Your task to perform on an android device: allow cookies in the chrome app Image 0: 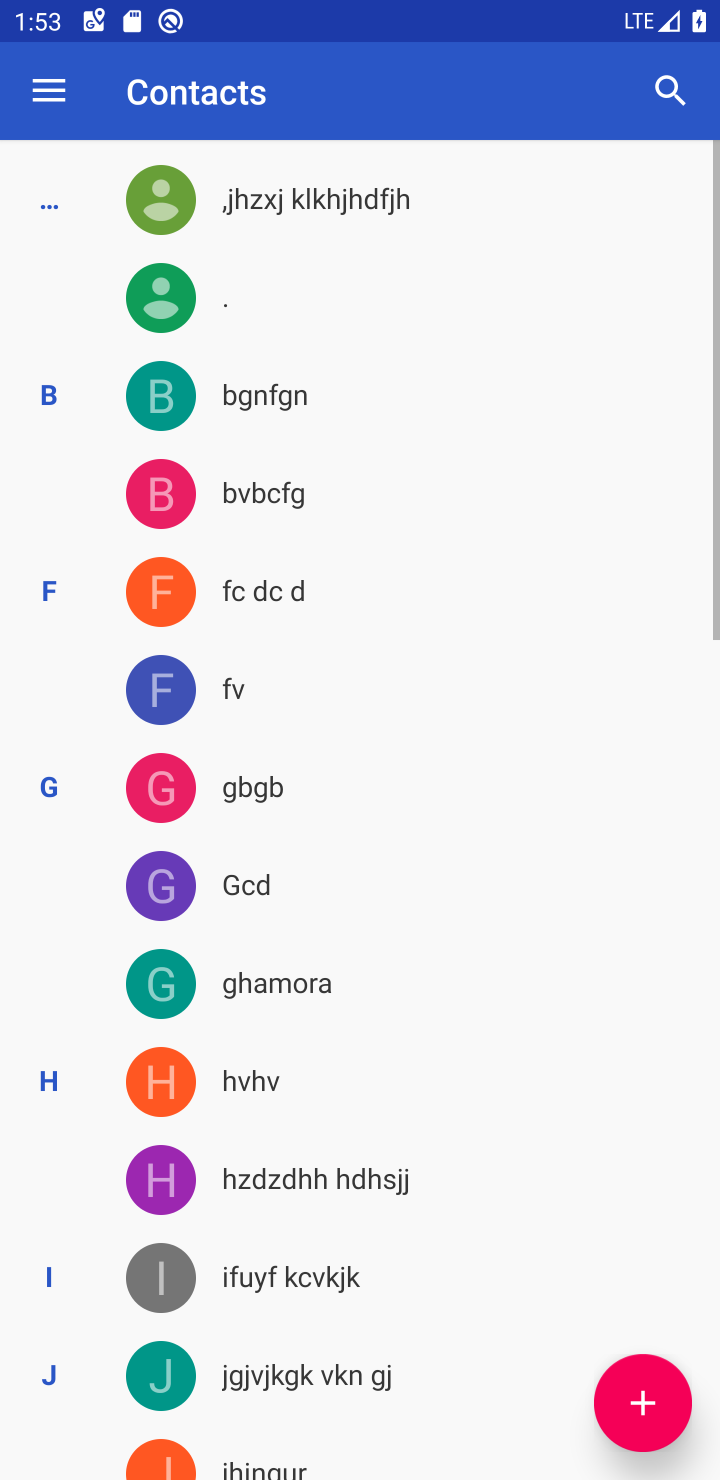
Step 0: press home button
Your task to perform on an android device: allow cookies in the chrome app Image 1: 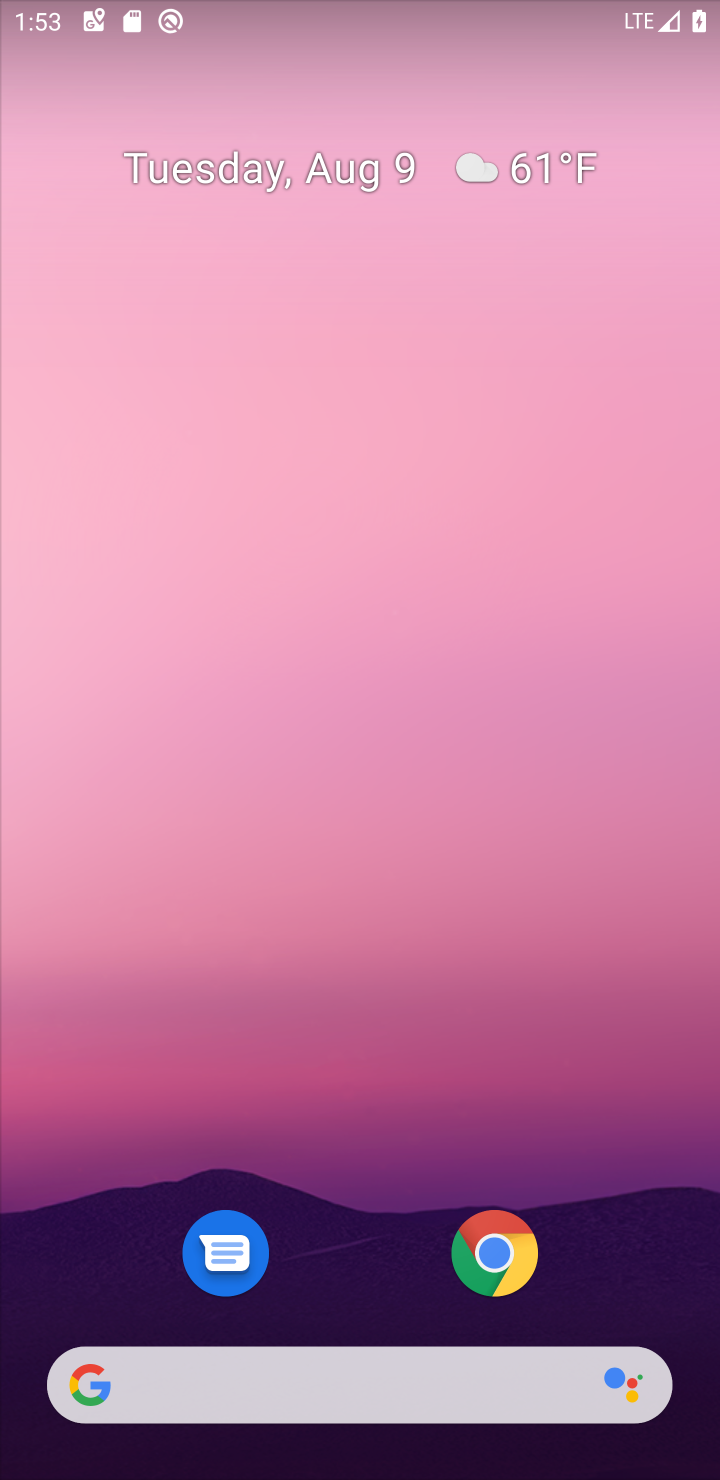
Step 1: drag from (649, 1254) to (257, 41)
Your task to perform on an android device: allow cookies in the chrome app Image 2: 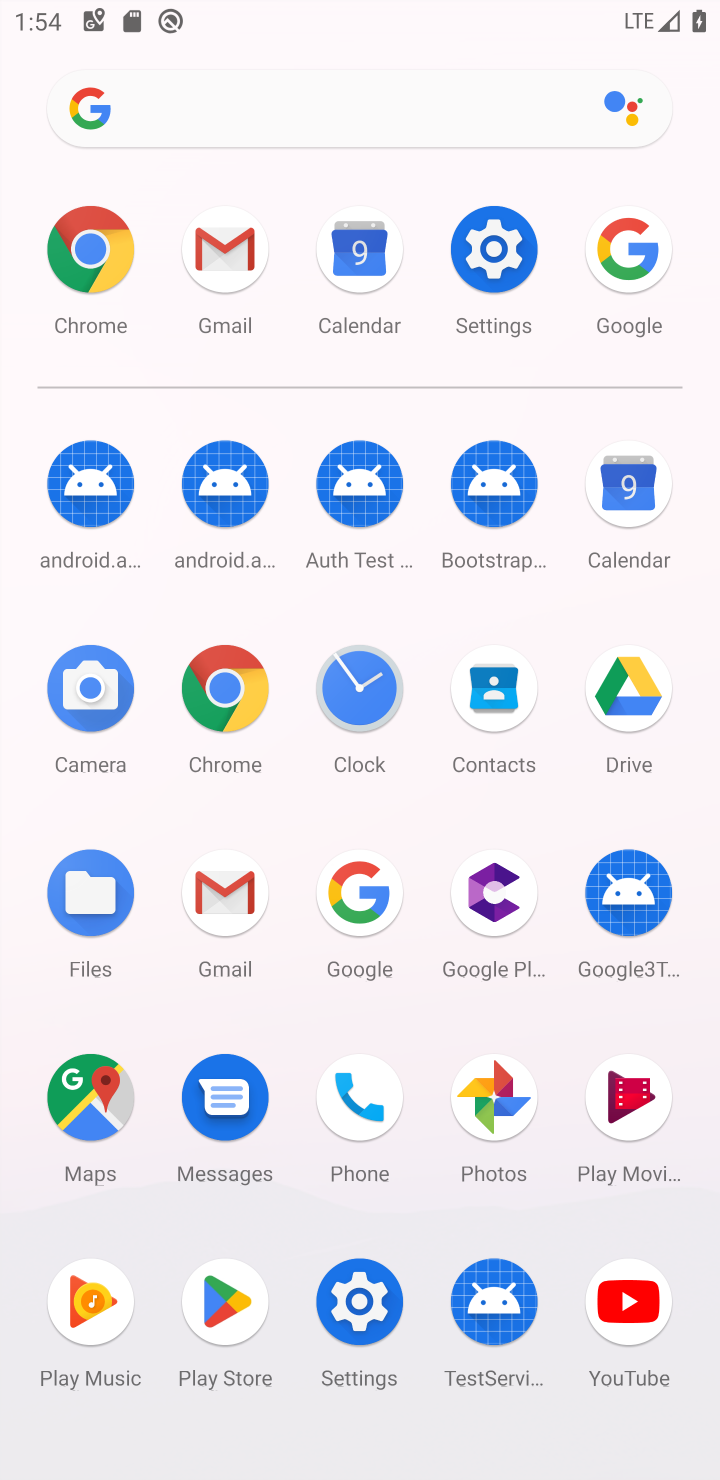
Step 2: click (242, 709)
Your task to perform on an android device: allow cookies in the chrome app Image 3: 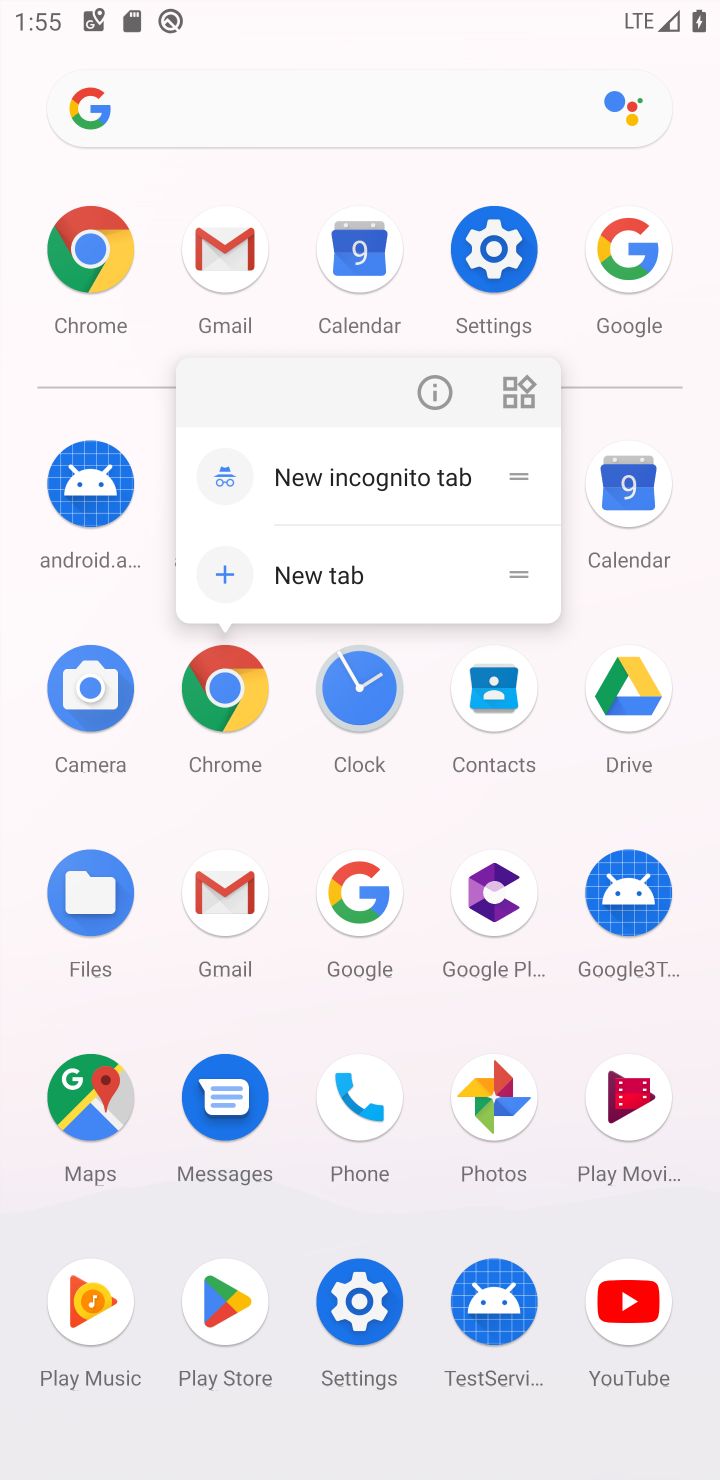
Step 3: click (252, 683)
Your task to perform on an android device: allow cookies in the chrome app Image 4: 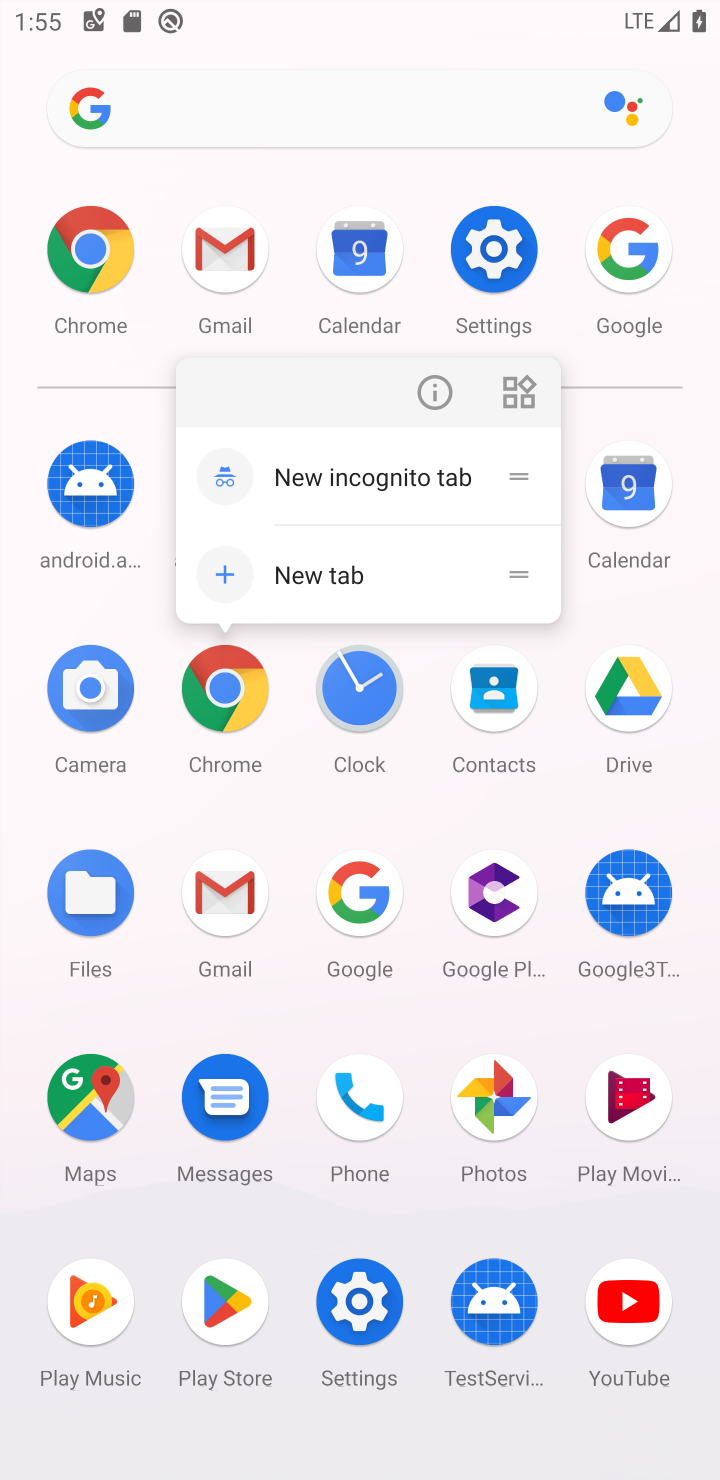
Step 4: click (252, 683)
Your task to perform on an android device: allow cookies in the chrome app Image 5: 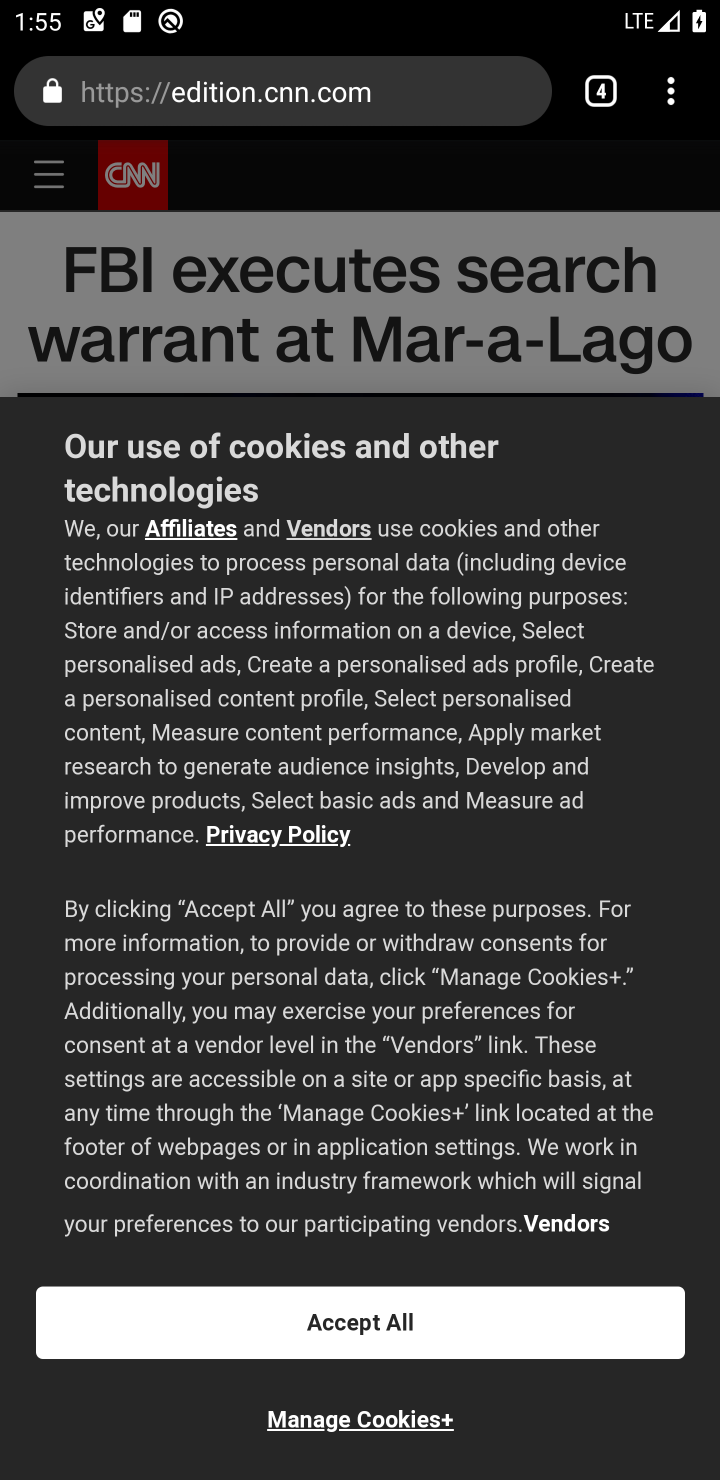
Step 5: task complete